Your task to perform on an android device: turn smart compose on in the gmail app Image 0: 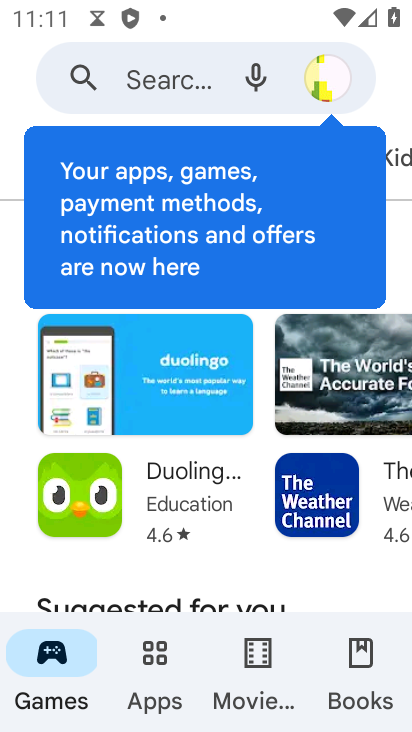
Step 0: press home button
Your task to perform on an android device: turn smart compose on in the gmail app Image 1: 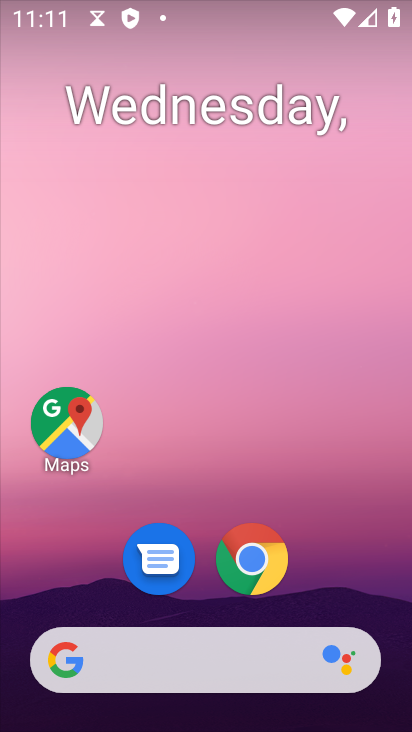
Step 1: drag from (399, 603) to (326, 177)
Your task to perform on an android device: turn smart compose on in the gmail app Image 2: 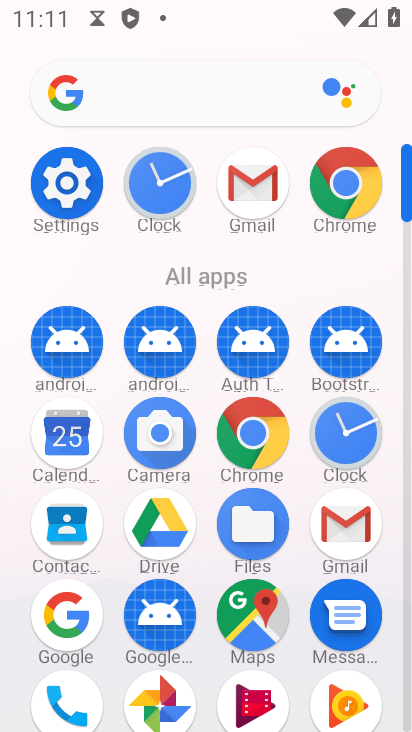
Step 2: click (261, 193)
Your task to perform on an android device: turn smart compose on in the gmail app Image 3: 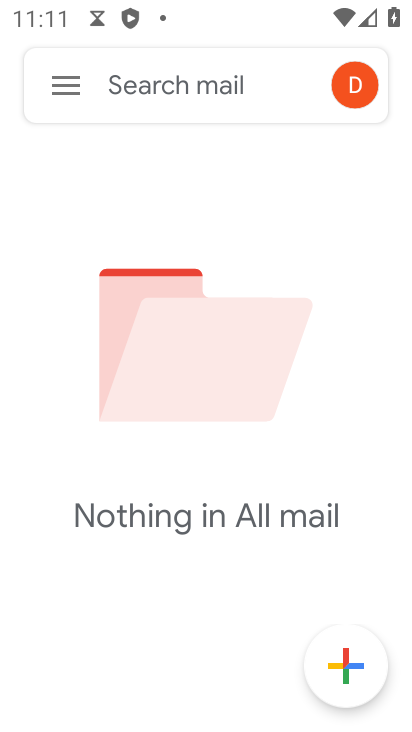
Step 3: click (72, 102)
Your task to perform on an android device: turn smart compose on in the gmail app Image 4: 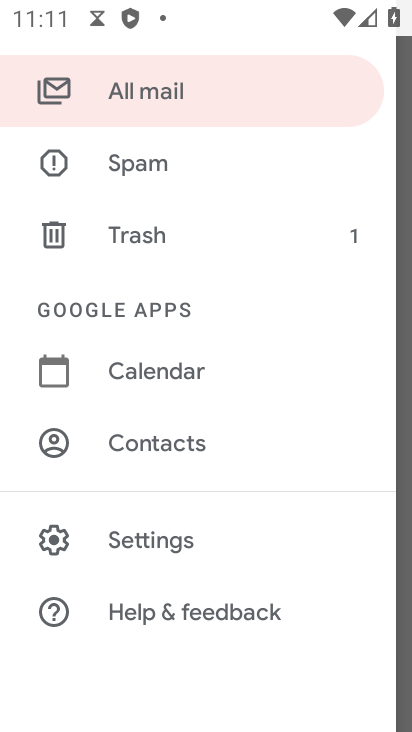
Step 4: click (166, 540)
Your task to perform on an android device: turn smart compose on in the gmail app Image 5: 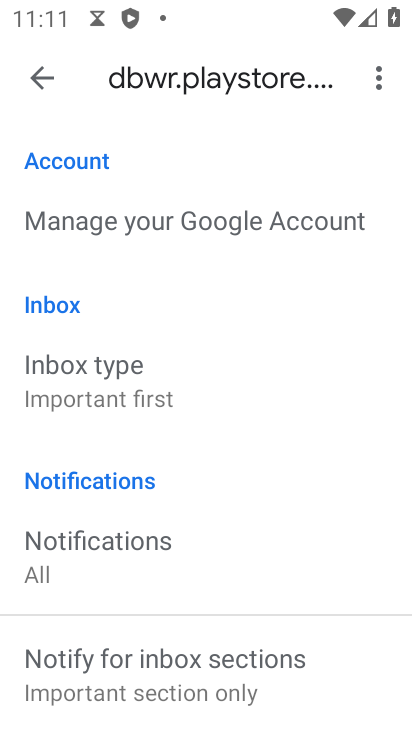
Step 5: task complete